Your task to perform on an android device: turn off translation in the chrome app Image 0: 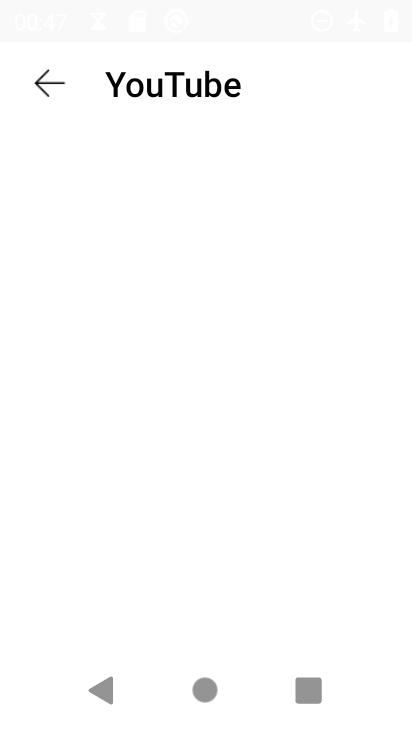
Step 0: click (326, 182)
Your task to perform on an android device: turn off translation in the chrome app Image 1: 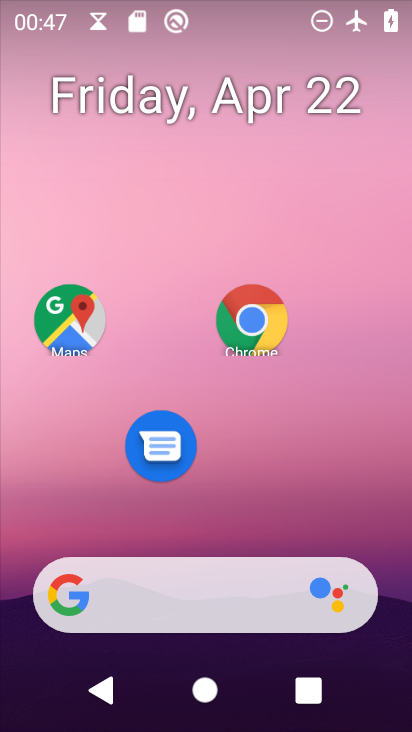
Step 1: drag from (209, 525) to (213, 184)
Your task to perform on an android device: turn off translation in the chrome app Image 2: 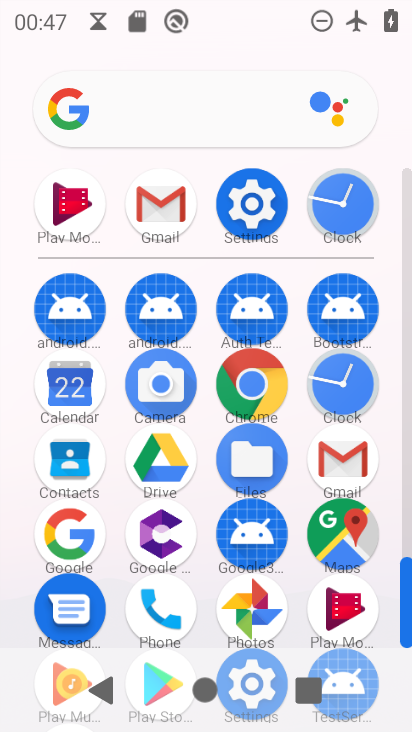
Step 2: click (254, 386)
Your task to perform on an android device: turn off translation in the chrome app Image 3: 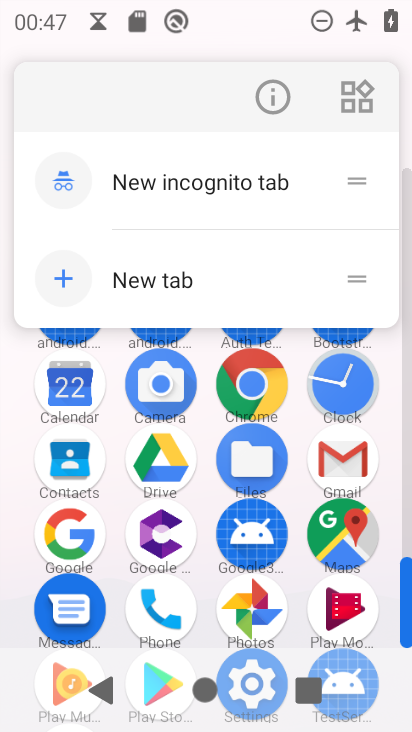
Step 3: click (271, 92)
Your task to perform on an android device: turn off translation in the chrome app Image 4: 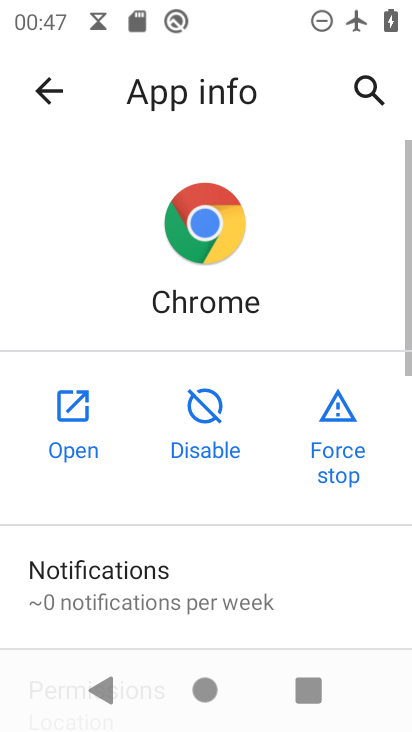
Step 4: click (71, 408)
Your task to perform on an android device: turn off translation in the chrome app Image 5: 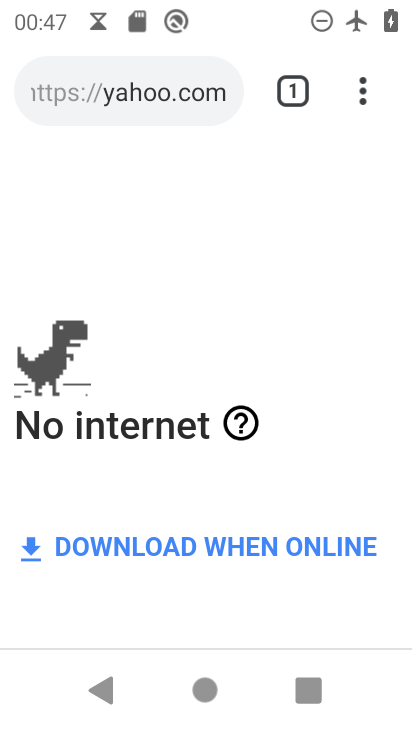
Step 5: click (365, 83)
Your task to perform on an android device: turn off translation in the chrome app Image 6: 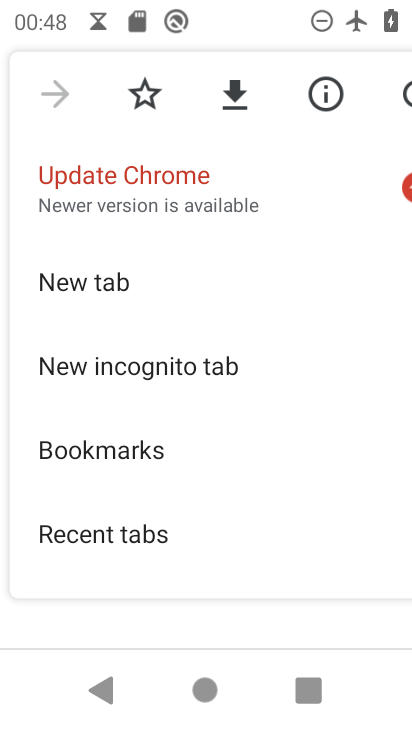
Step 6: drag from (202, 509) to (236, 198)
Your task to perform on an android device: turn off translation in the chrome app Image 7: 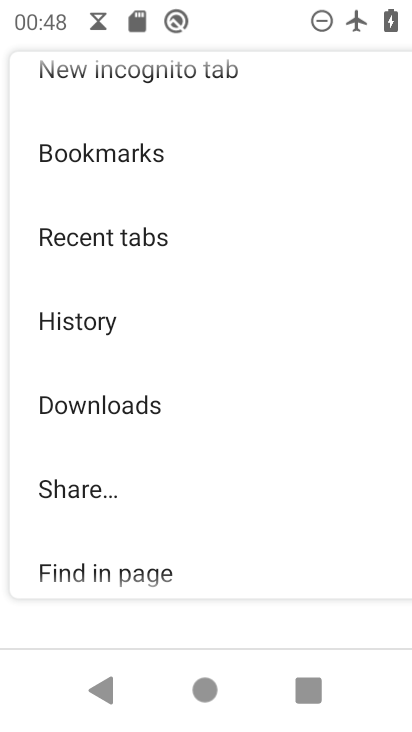
Step 7: drag from (206, 513) to (213, 184)
Your task to perform on an android device: turn off translation in the chrome app Image 8: 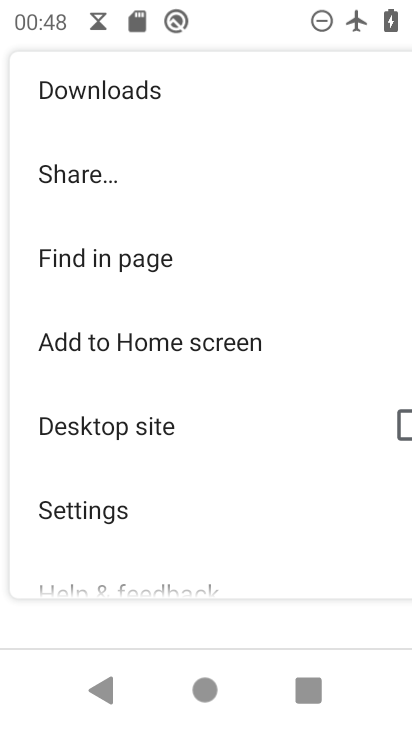
Step 8: click (139, 503)
Your task to perform on an android device: turn off translation in the chrome app Image 9: 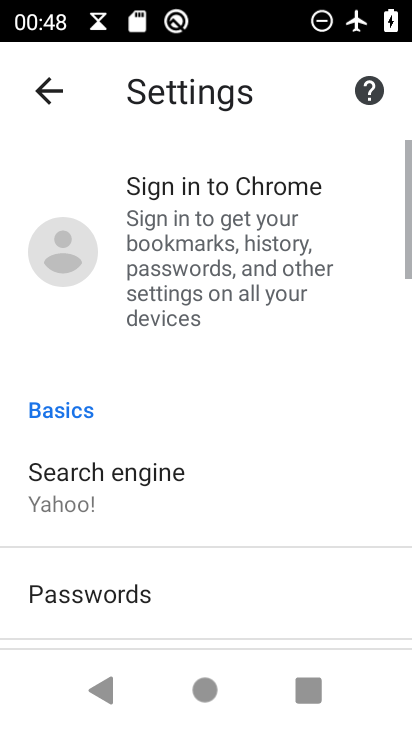
Step 9: drag from (246, 506) to (274, 296)
Your task to perform on an android device: turn off translation in the chrome app Image 10: 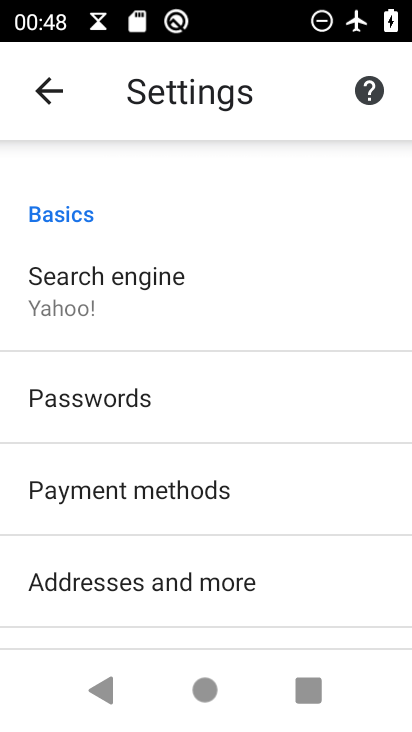
Step 10: drag from (172, 566) to (246, 259)
Your task to perform on an android device: turn off translation in the chrome app Image 11: 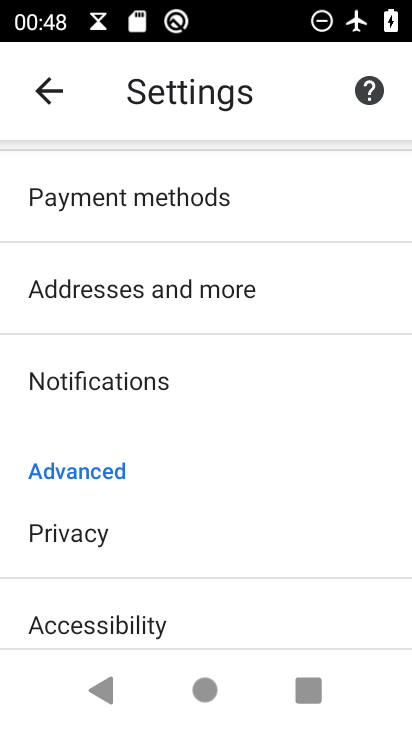
Step 11: drag from (191, 590) to (184, 170)
Your task to perform on an android device: turn off translation in the chrome app Image 12: 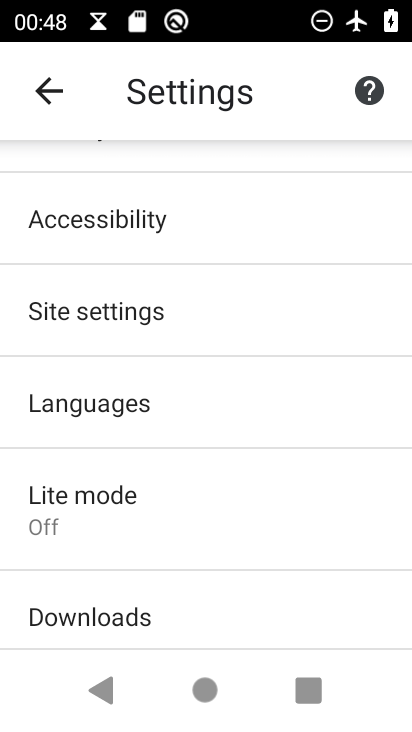
Step 12: drag from (202, 502) to (215, 295)
Your task to perform on an android device: turn off translation in the chrome app Image 13: 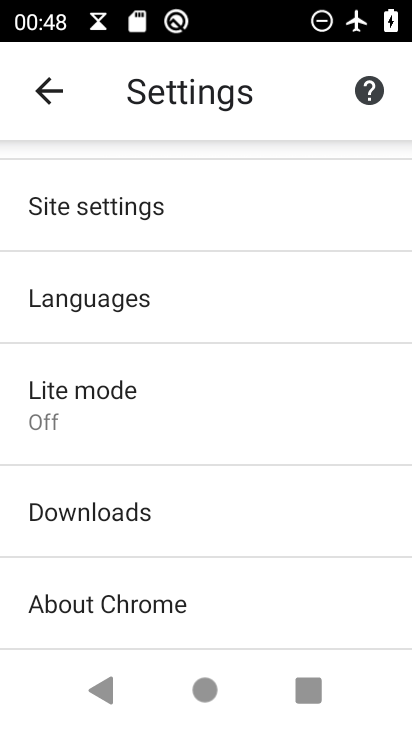
Step 13: click (146, 305)
Your task to perform on an android device: turn off translation in the chrome app Image 14: 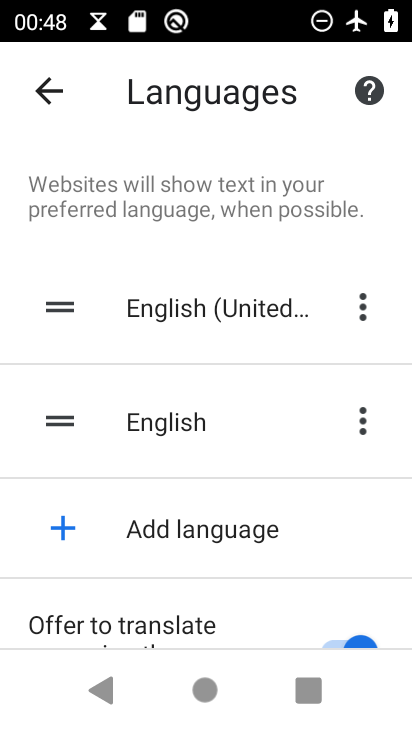
Step 14: drag from (246, 541) to (288, 255)
Your task to perform on an android device: turn off translation in the chrome app Image 15: 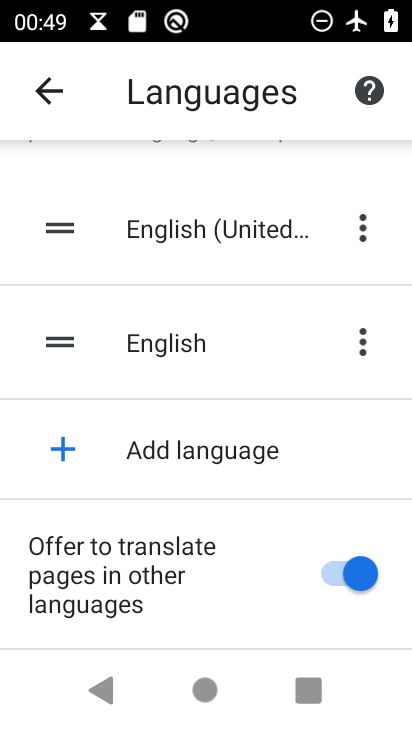
Step 15: click (306, 564)
Your task to perform on an android device: turn off translation in the chrome app Image 16: 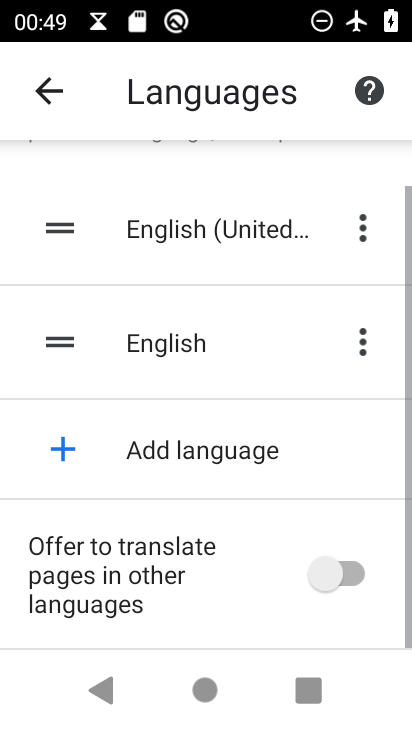
Step 16: task complete